Your task to perform on an android device: Check the weather Image 0: 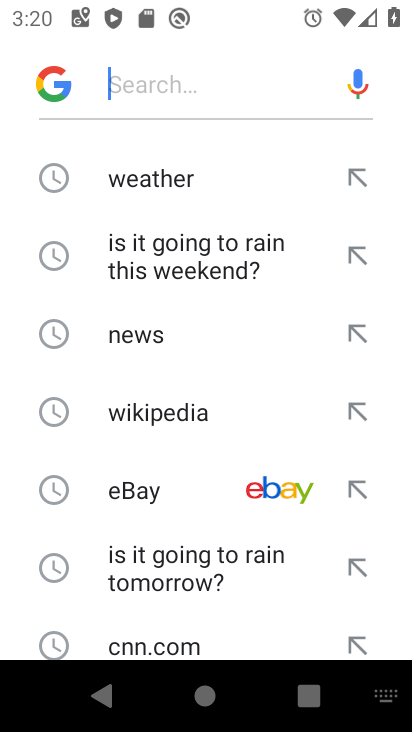
Step 0: click (173, 172)
Your task to perform on an android device: Check the weather Image 1: 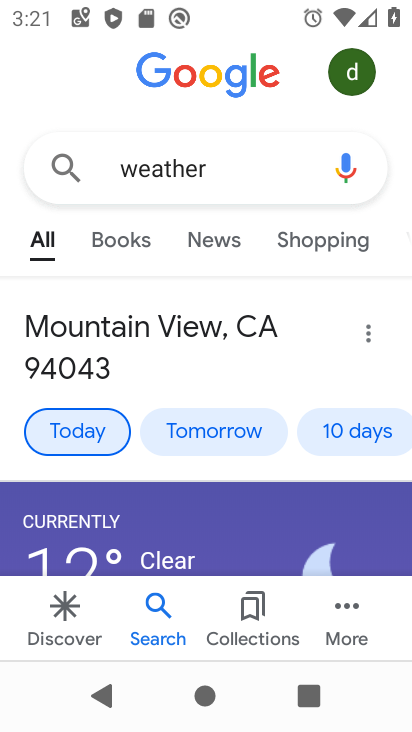
Step 1: task complete